Your task to perform on an android device: Open settings on Google Maps Image 0: 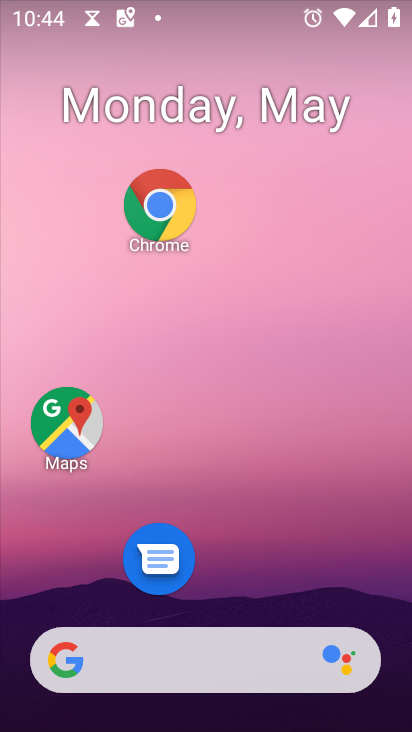
Step 0: drag from (249, 435) to (189, 20)
Your task to perform on an android device: Open settings on Google Maps Image 1: 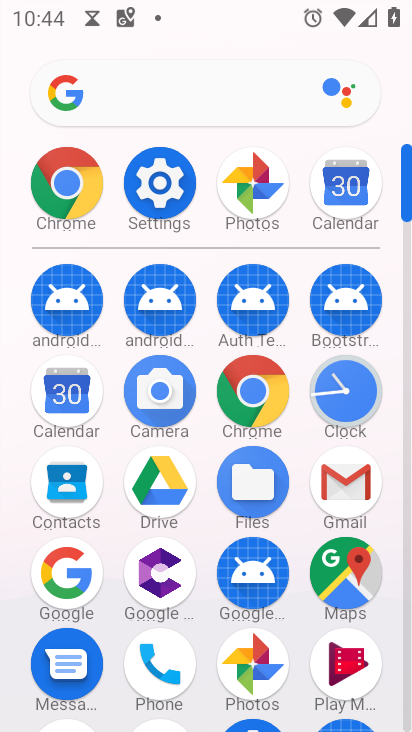
Step 1: drag from (313, 506) to (266, 24)
Your task to perform on an android device: Open settings on Google Maps Image 2: 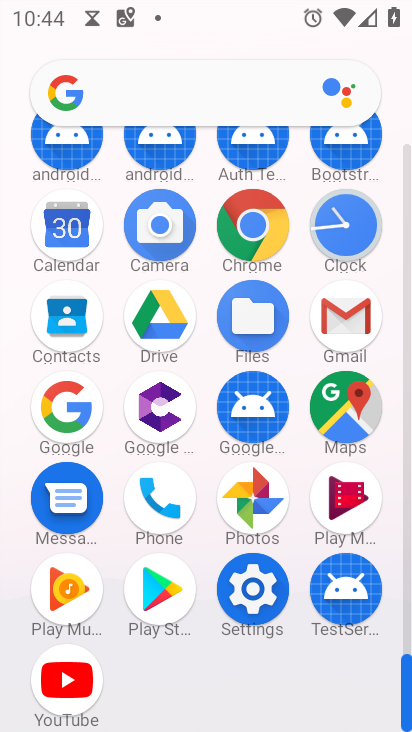
Step 2: click (334, 401)
Your task to perform on an android device: Open settings on Google Maps Image 3: 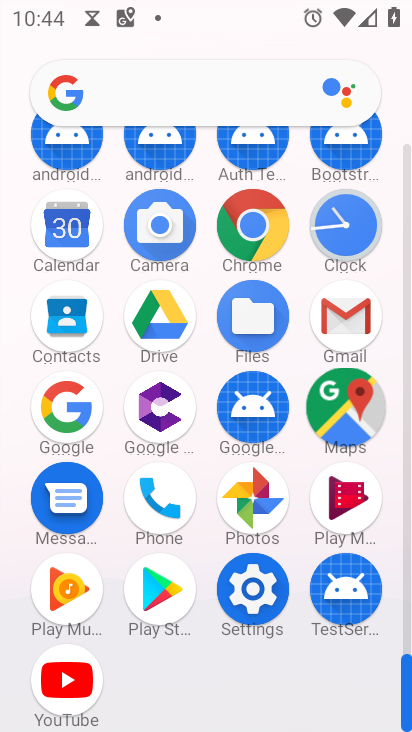
Step 3: click (334, 401)
Your task to perform on an android device: Open settings on Google Maps Image 4: 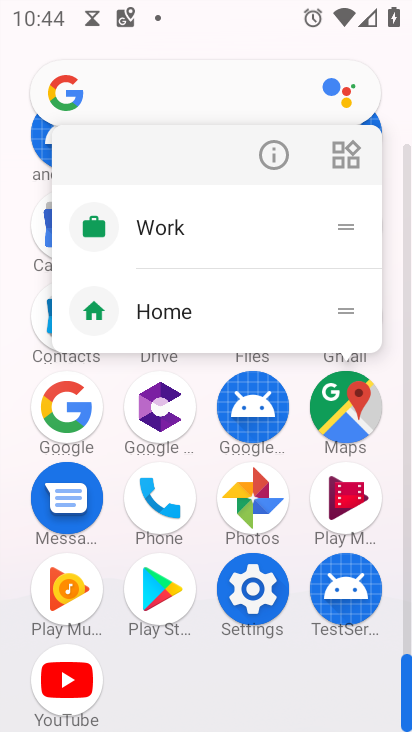
Step 4: click (336, 398)
Your task to perform on an android device: Open settings on Google Maps Image 5: 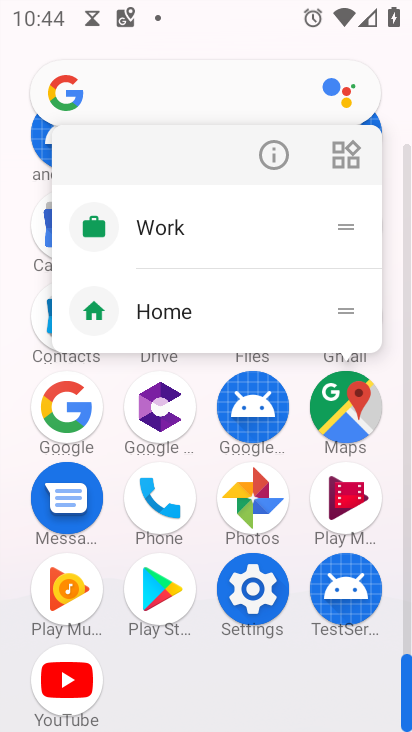
Step 5: click (336, 398)
Your task to perform on an android device: Open settings on Google Maps Image 6: 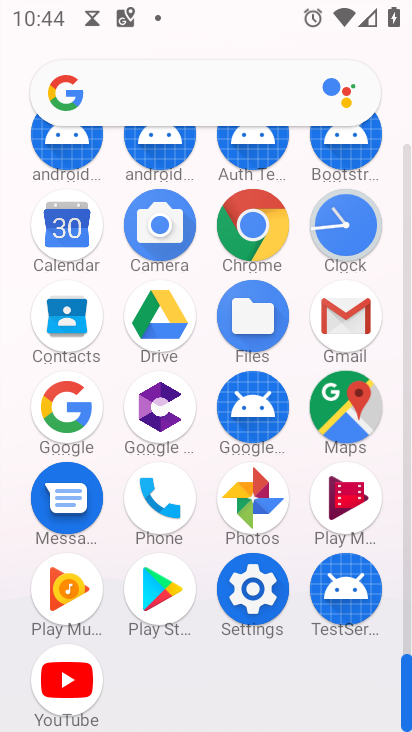
Step 6: click (337, 398)
Your task to perform on an android device: Open settings on Google Maps Image 7: 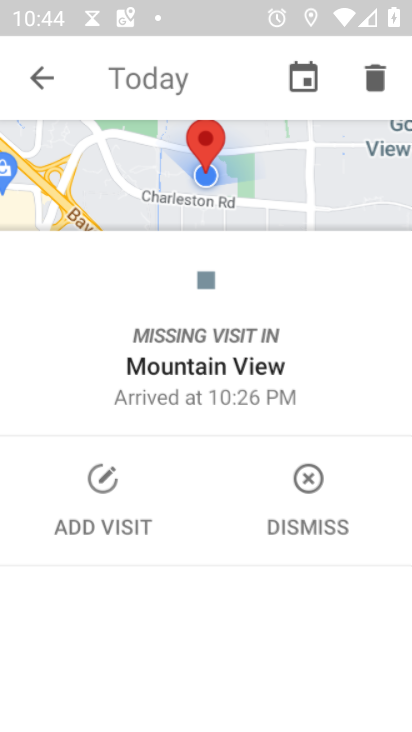
Step 7: click (338, 398)
Your task to perform on an android device: Open settings on Google Maps Image 8: 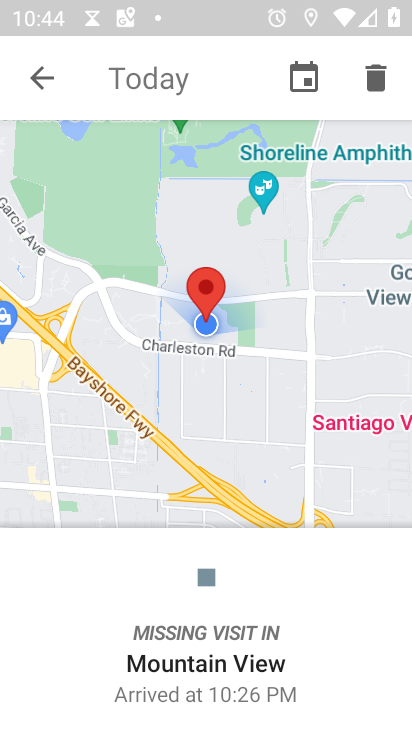
Step 8: click (24, 62)
Your task to perform on an android device: Open settings on Google Maps Image 9: 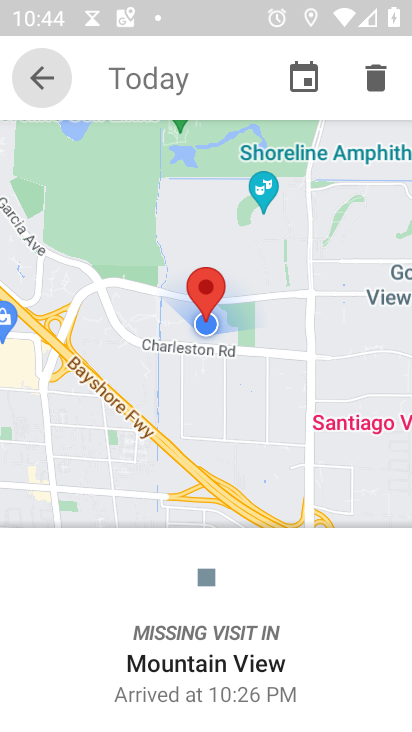
Step 9: click (45, 78)
Your task to perform on an android device: Open settings on Google Maps Image 10: 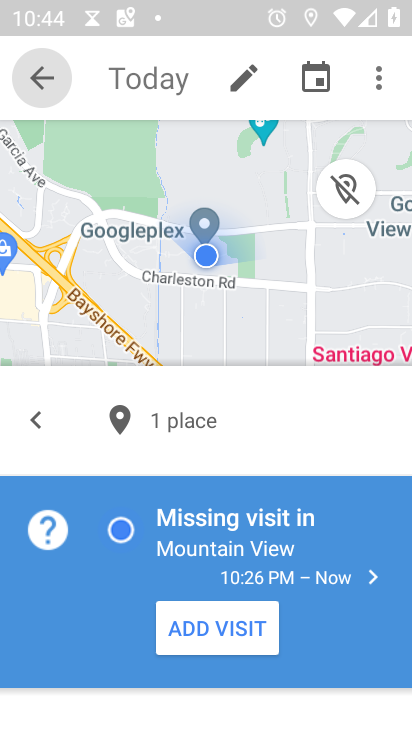
Step 10: click (39, 80)
Your task to perform on an android device: Open settings on Google Maps Image 11: 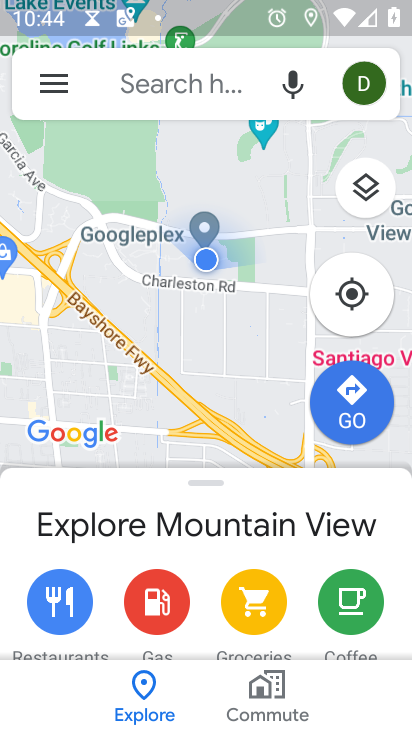
Step 11: click (54, 90)
Your task to perform on an android device: Open settings on Google Maps Image 12: 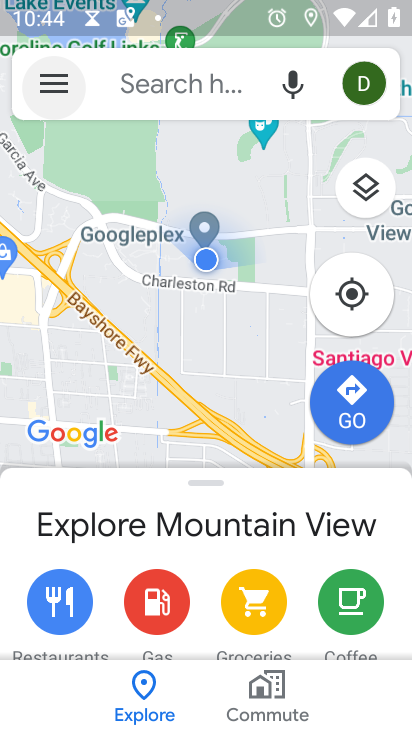
Step 12: click (54, 90)
Your task to perform on an android device: Open settings on Google Maps Image 13: 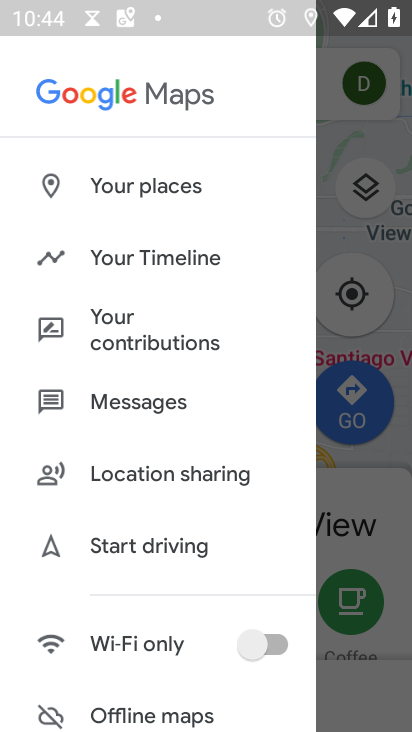
Step 13: click (328, 220)
Your task to perform on an android device: Open settings on Google Maps Image 14: 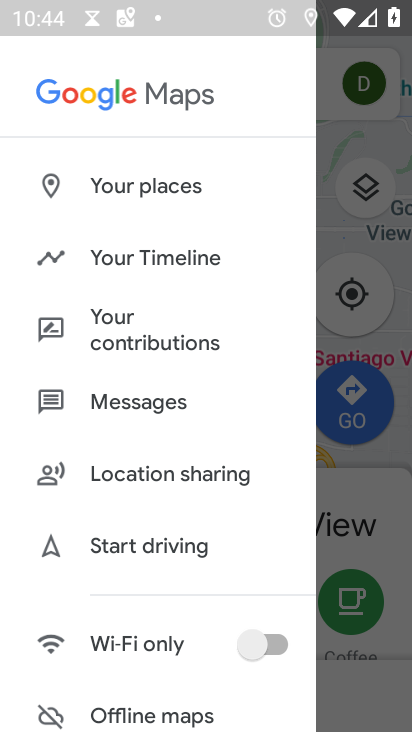
Step 14: click (329, 220)
Your task to perform on an android device: Open settings on Google Maps Image 15: 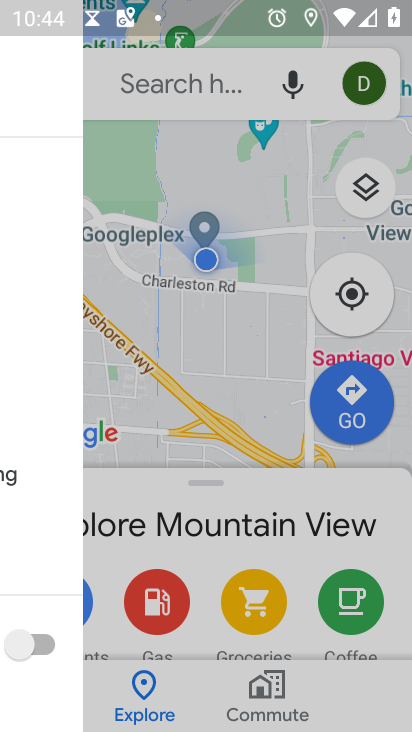
Step 15: click (329, 220)
Your task to perform on an android device: Open settings on Google Maps Image 16: 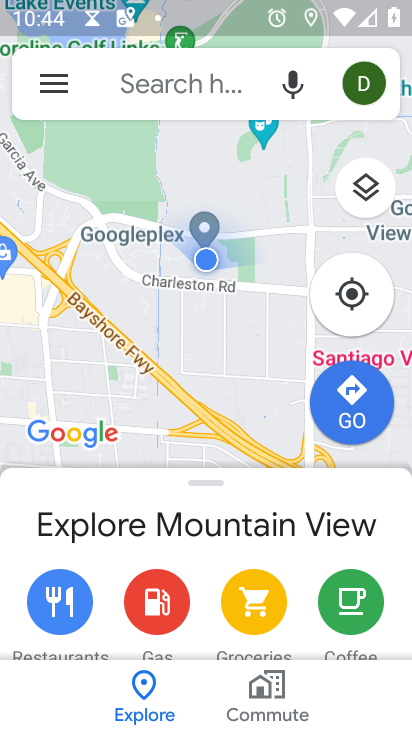
Step 16: click (35, 77)
Your task to perform on an android device: Open settings on Google Maps Image 17: 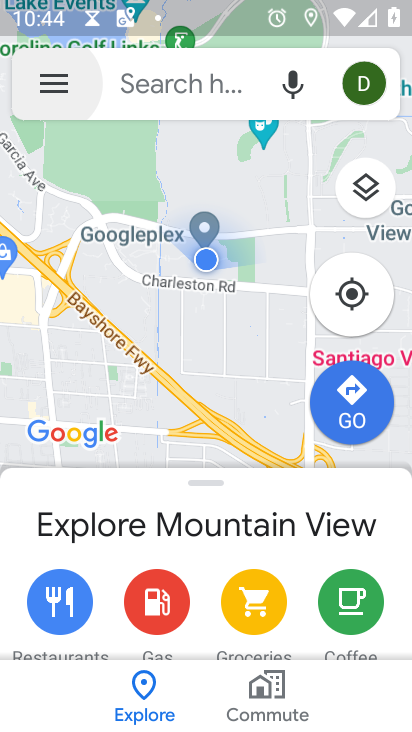
Step 17: click (48, 82)
Your task to perform on an android device: Open settings on Google Maps Image 18: 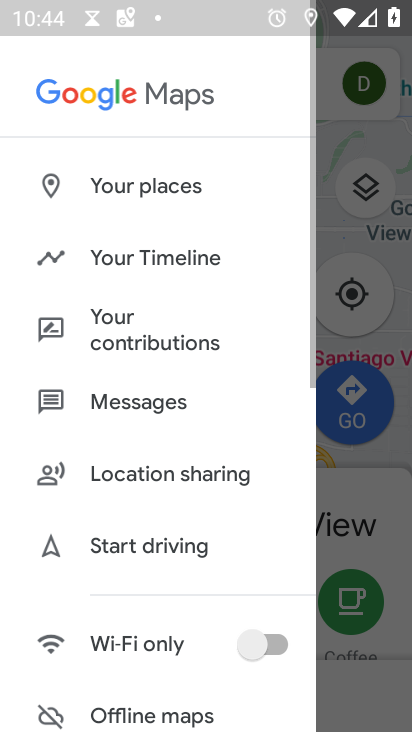
Step 18: click (48, 74)
Your task to perform on an android device: Open settings on Google Maps Image 19: 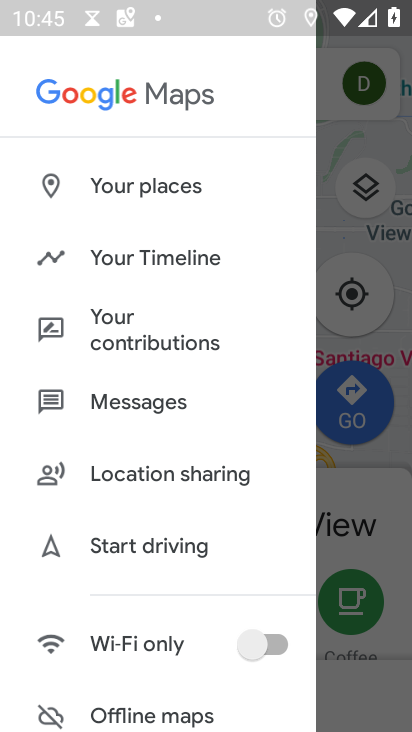
Step 19: click (352, 290)
Your task to perform on an android device: Open settings on Google Maps Image 20: 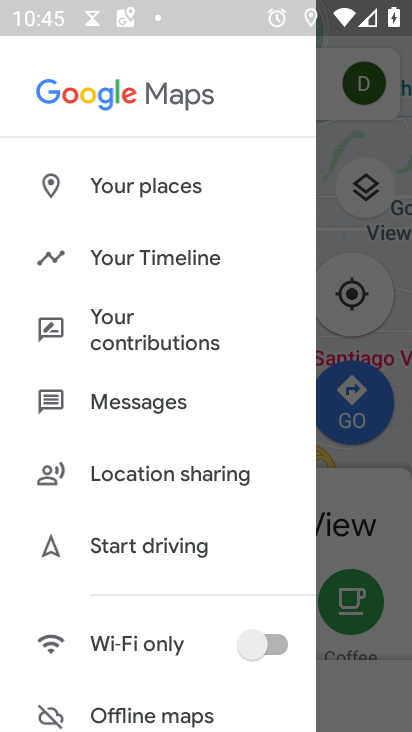
Step 20: click (352, 290)
Your task to perform on an android device: Open settings on Google Maps Image 21: 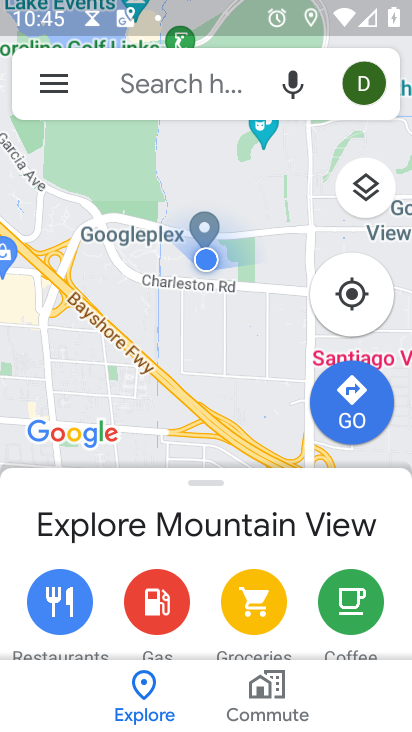
Step 21: task complete